Your task to perform on an android device: What's the weather going to be this weekend? Image 0: 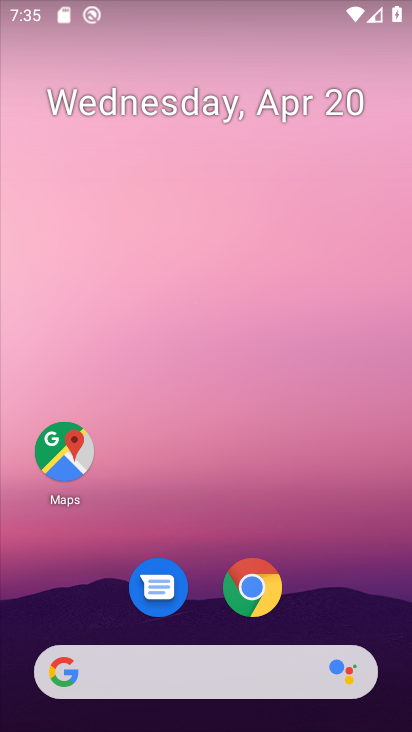
Step 0: drag from (373, 607) to (299, 29)
Your task to perform on an android device: What's the weather going to be this weekend? Image 1: 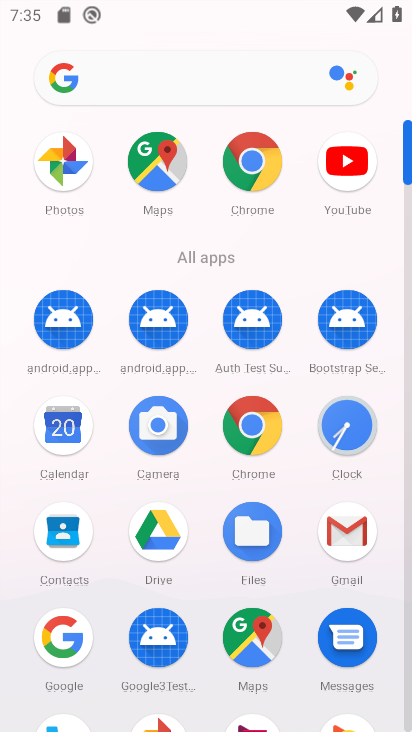
Step 1: click (200, 83)
Your task to perform on an android device: What's the weather going to be this weekend? Image 2: 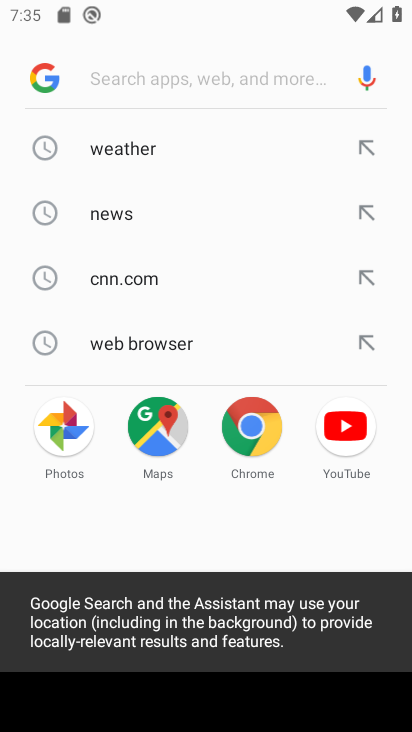
Step 2: click (194, 154)
Your task to perform on an android device: What's the weather going to be this weekend? Image 3: 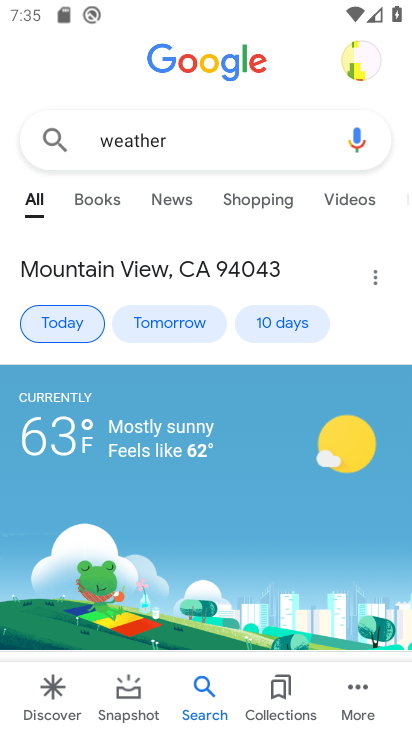
Step 3: click (301, 325)
Your task to perform on an android device: What's the weather going to be this weekend? Image 4: 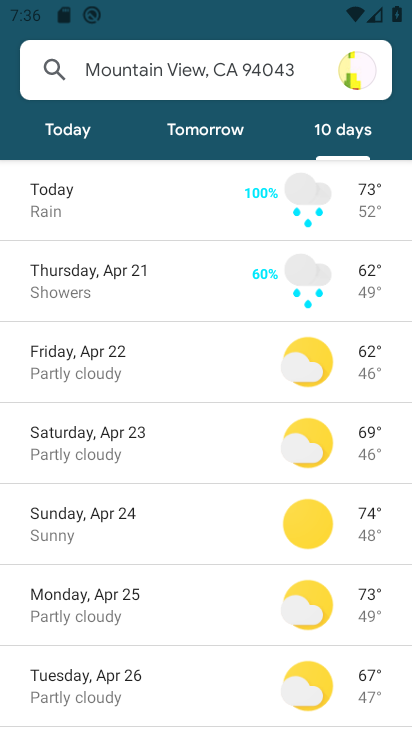
Step 4: task complete